Your task to perform on an android device: stop showing notifications on the lock screen Image 0: 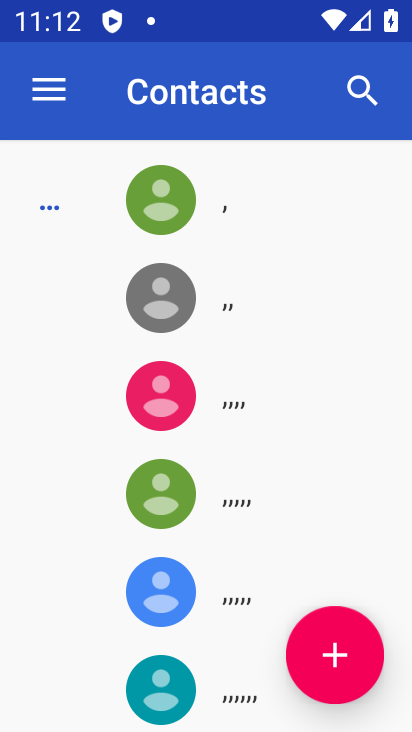
Step 0: press home button
Your task to perform on an android device: stop showing notifications on the lock screen Image 1: 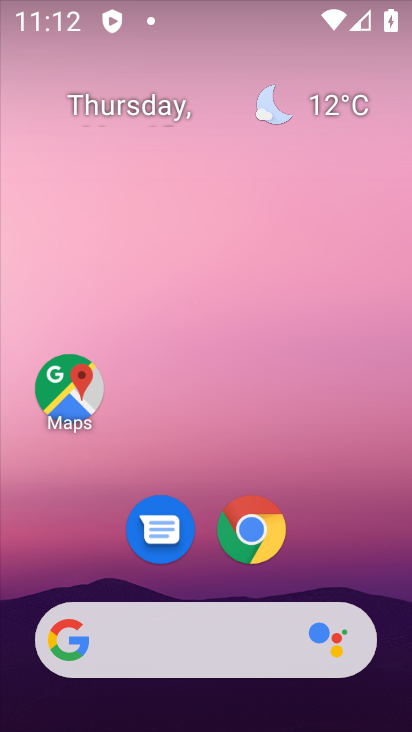
Step 1: drag from (330, 523) to (330, 296)
Your task to perform on an android device: stop showing notifications on the lock screen Image 2: 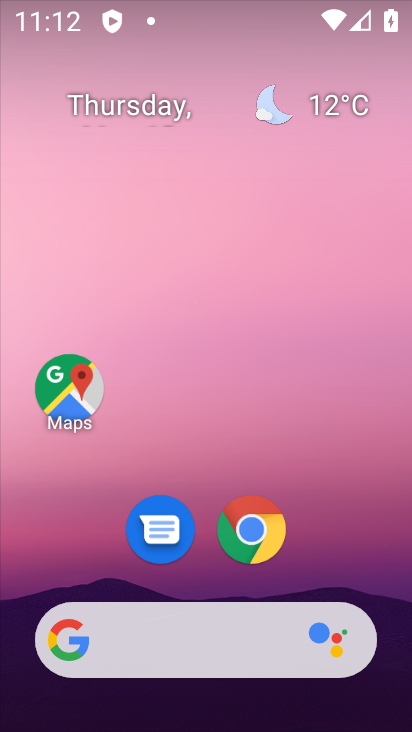
Step 2: drag from (328, 386) to (311, 263)
Your task to perform on an android device: stop showing notifications on the lock screen Image 3: 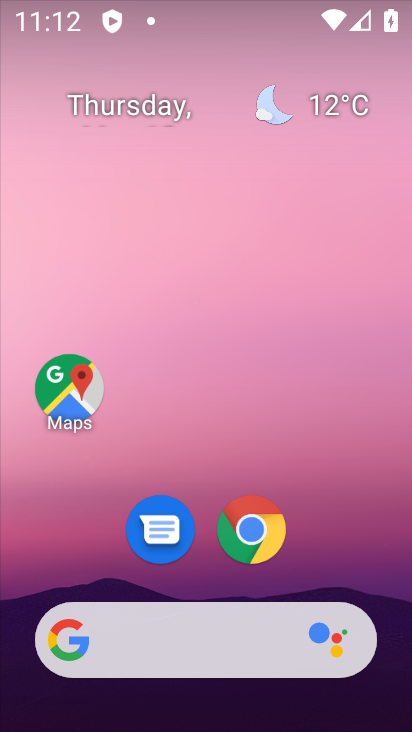
Step 3: drag from (260, 551) to (290, 226)
Your task to perform on an android device: stop showing notifications on the lock screen Image 4: 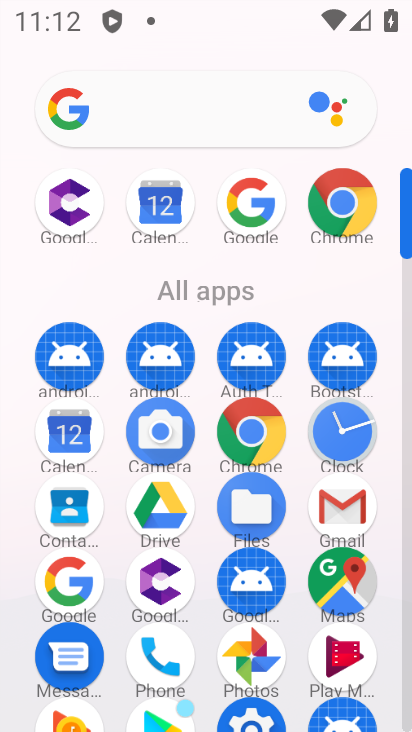
Step 4: drag from (210, 607) to (235, 242)
Your task to perform on an android device: stop showing notifications on the lock screen Image 5: 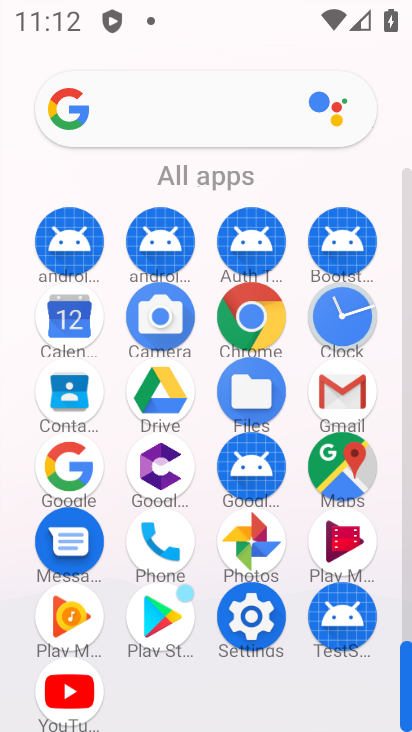
Step 5: click (232, 611)
Your task to perform on an android device: stop showing notifications on the lock screen Image 6: 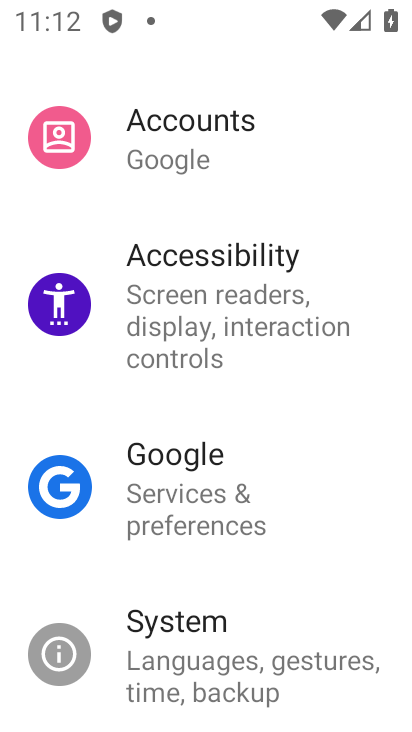
Step 6: drag from (204, 134) to (137, 656)
Your task to perform on an android device: stop showing notifications on the lock screen Image 7: 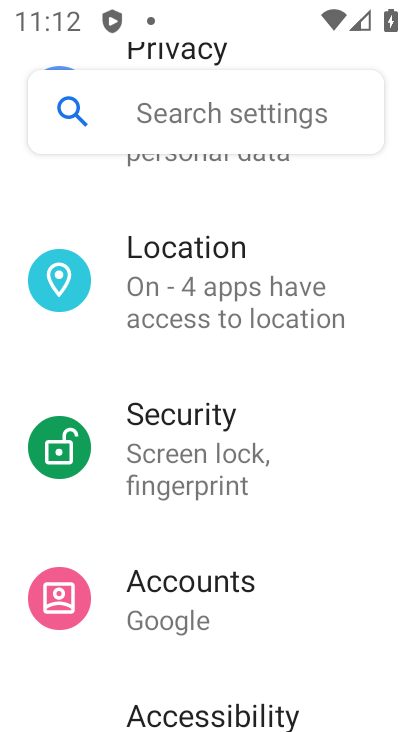
Step 7: drag from (172, 213) to (127, 683)
Your task to perform on an android device: stop showing notifications on the lock screen Image 8: 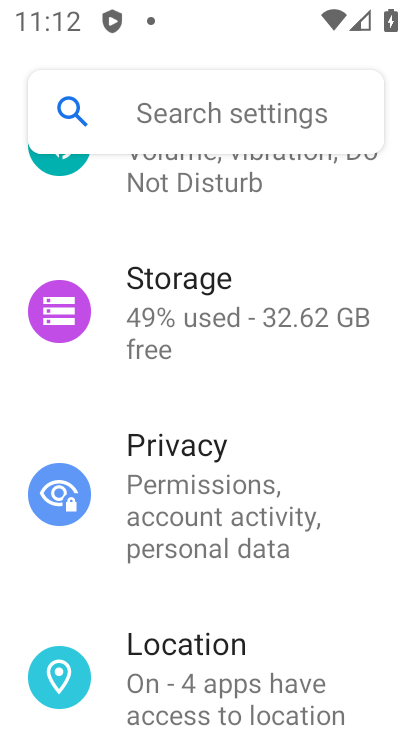
Step 8: drag from (231, 277) to (223, 589)
Your task to perform on an android device: stop showing notifications on the lock screen Image 9: 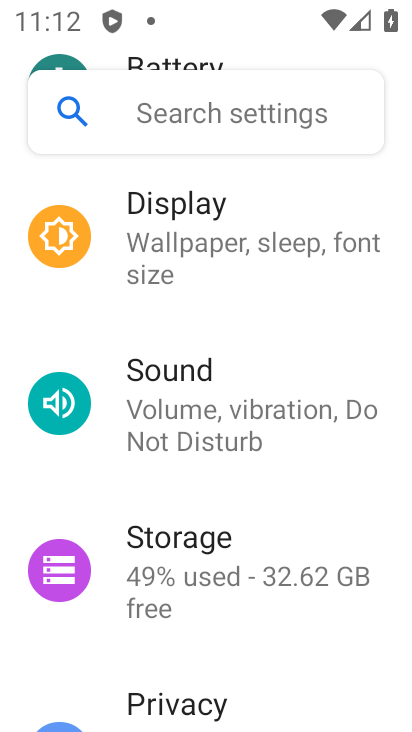
Step 9: drag from (272, 248) to (215, 642)
Your task to perform on an android device: stop showing notifications on the lock screen Image 10: 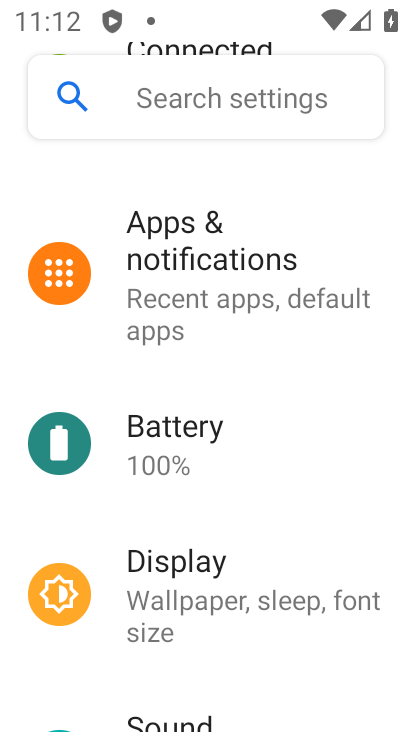
Step 10: click (161, 247)
Your task to perform on an android device: stop showing notifications on the lock screen Image 11: 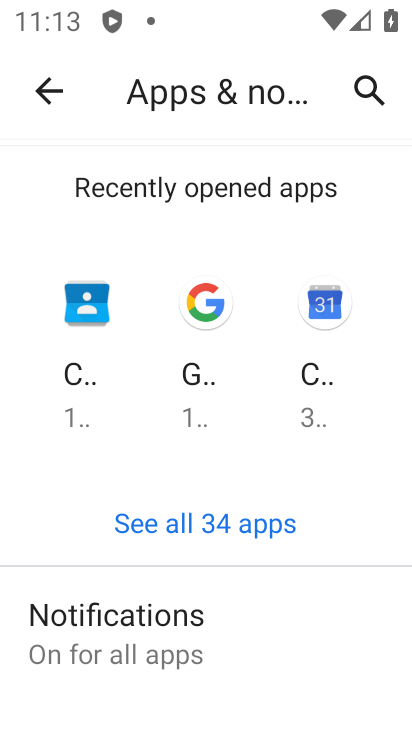
Step 11: click (169, 626)
Your task to perform on an android device: stop showing notifications on the lock screen Image 12: 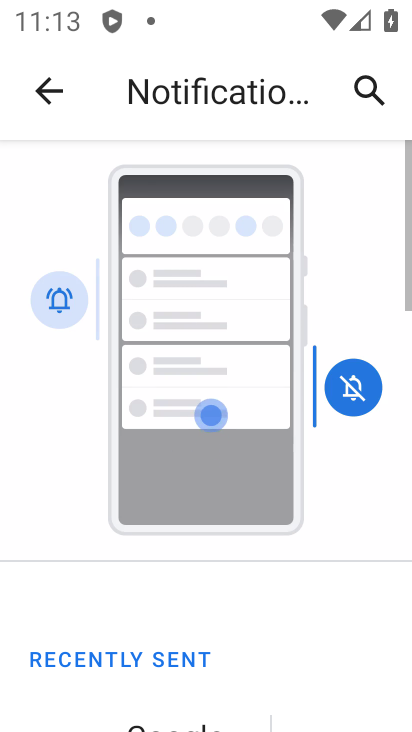
Step 12: drag from (202, 501) to (300, 205)
Your task to perform on an android device: stop showing notifications on the lock screen Image 13: 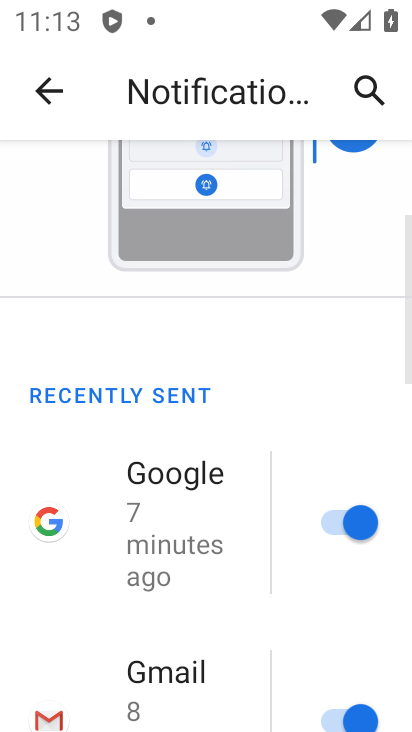
Step 13: drag from (209, 616) to (322, 166)
Your task to perform on an android device: stop showing notifications on the lock screen Image 14: 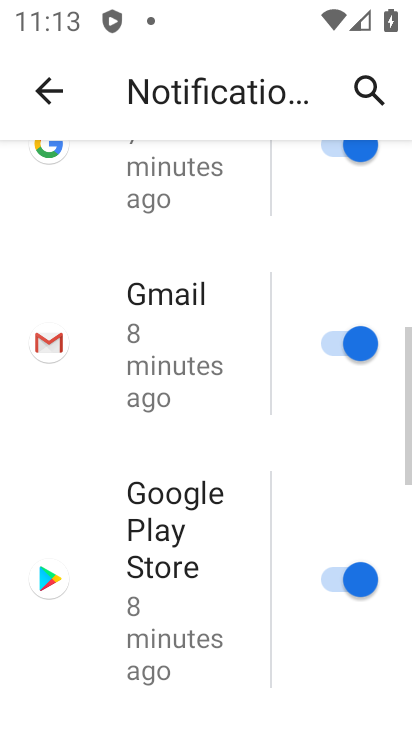
Step 14: drag from (176, 621) to (253, 169)
Your task to perform on an android device: stop showing notifications on the lock screen Image 15: 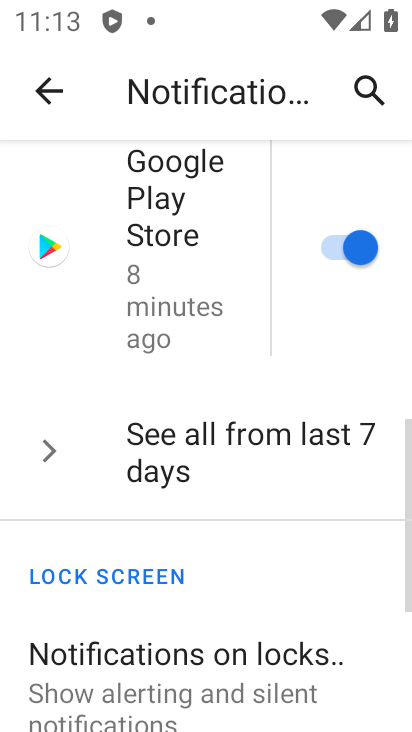
Step 15: drag from (180, 653) to (239, 353)
Your task to perform on an android device: stop showing notifications on the lock screen Image 16: 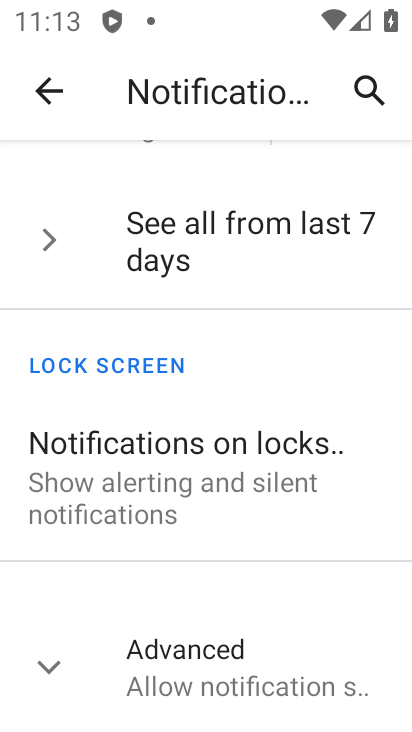
Step 16: click (115, 494)
Your task to perform on an android device: stop showing notifications on the lock screen Image 17: 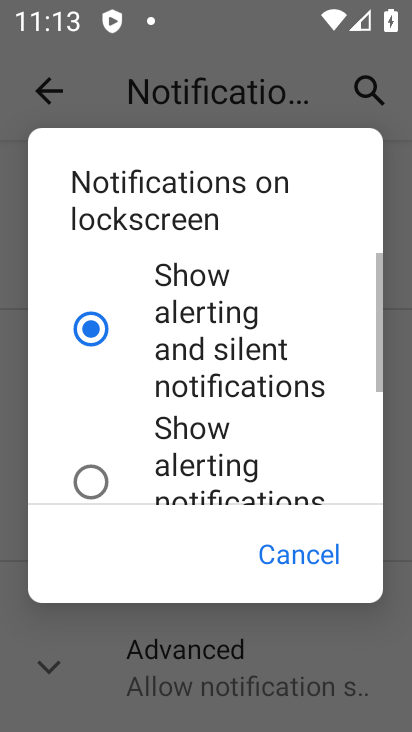
Step 17: drag from (200, 441) to (227, 264)
Your task to perform on an android device: stop showing notifications on the lock screen Image 18: 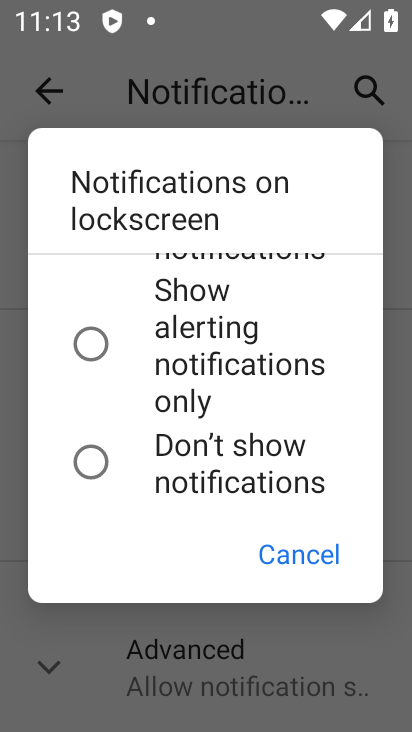
Step 18: click (141, 451)
Your task to perform on an android device: stop showing notifications on the lock screen Image 19: 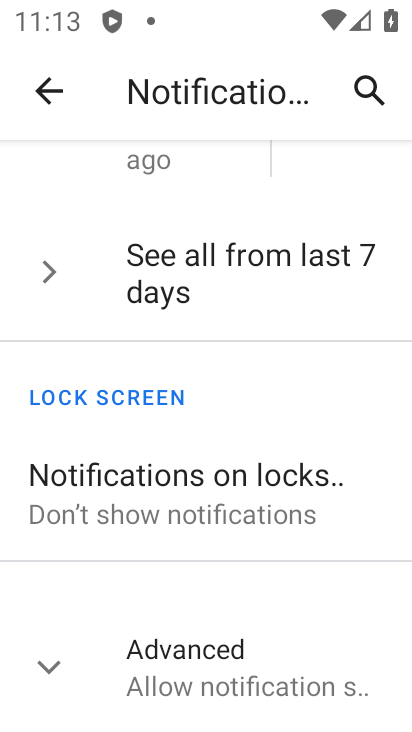
Step 19: task complete